Your task to perform on an android device: toggle sleep mode Image 0: 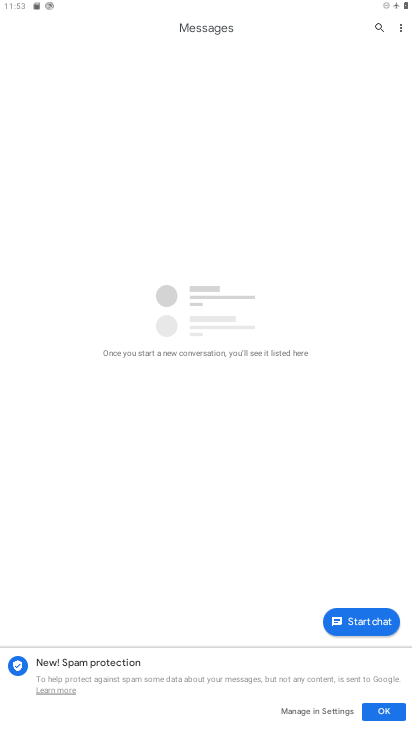
Step 0: press home button
Your task to perform on an android device: toggle sleep mode Image 1: 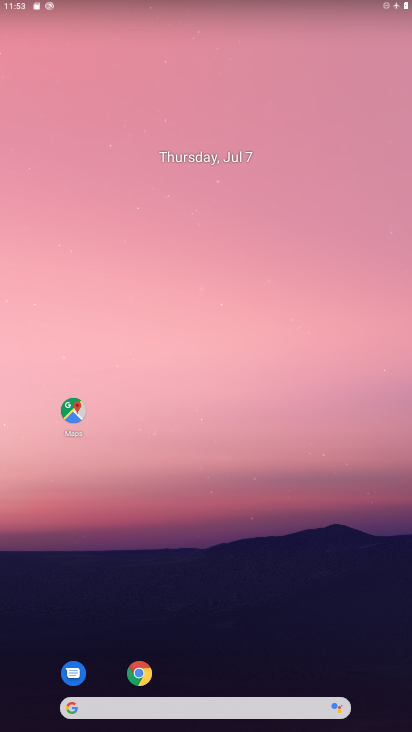
Step 1: drag from (223, 654) to (287, 340)
Your task to perform on an android device: toggle sleep mode Image 2: 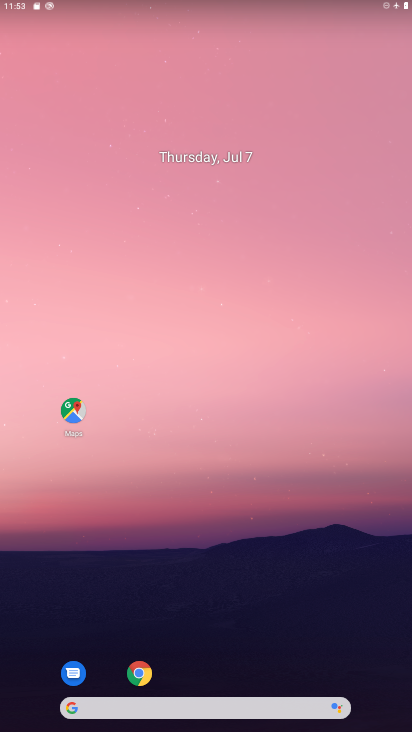
Step 2: drag from (263, 548) to (337, 313)
Your task to perform on an android device: toggle sleep mode Image 3: 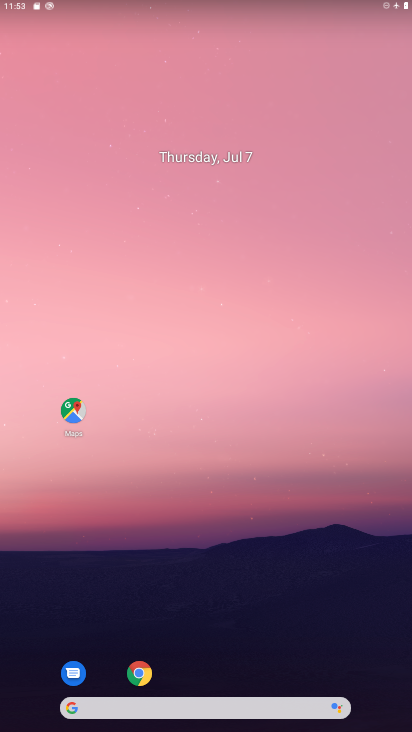
Step 3: drag from (306, 587) to (276, 264)
Your task to perform on an android device: toggle sleep mode Image 4: 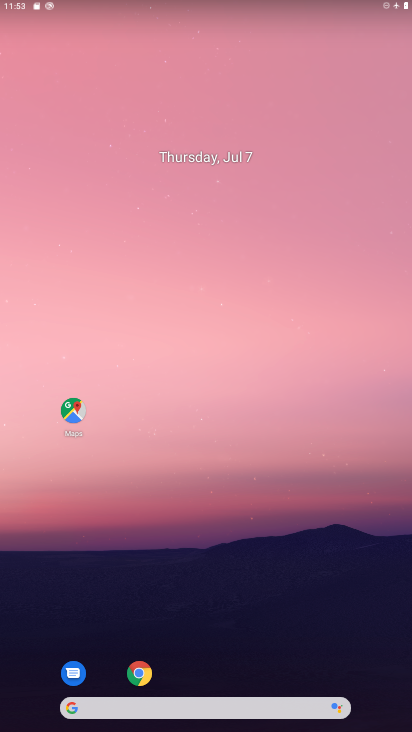
Step 4: drag from (245, 657) to (269, 360)
Your task to perform on an android device: toggle sleep mode Image 5: 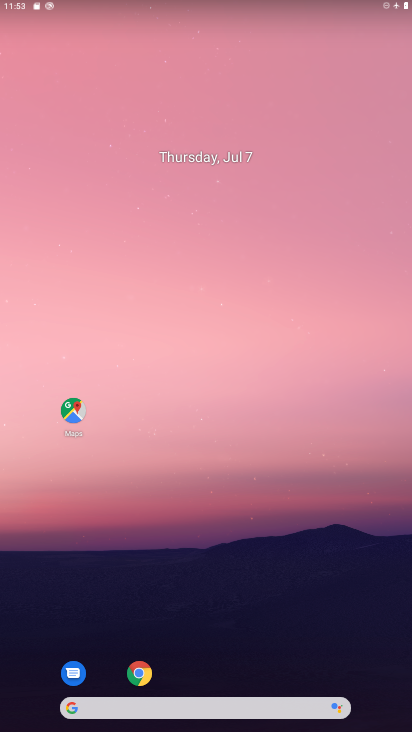
Step 5: drag from (255, 547) to (274, 264)
Your task to perform on an android device: toggle sleep mode Image 6: 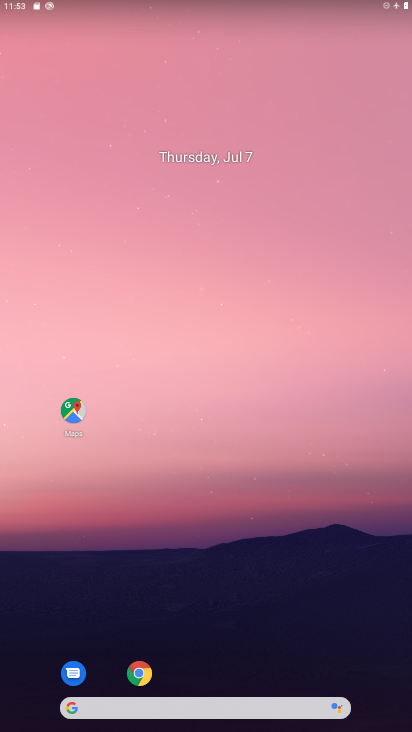
Step 6: drag from (269, 486) to (263, 227)
Your task to perform on an android device: toggle sleep mode Image 7: 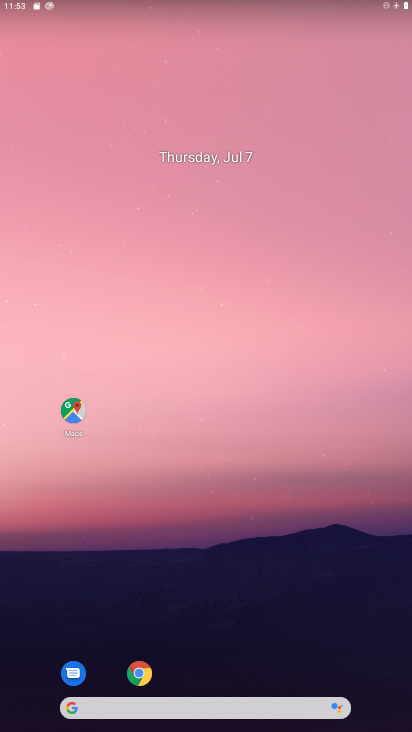
Step 7: drag from (293, 604) to (320, 460)
Your task to perform on an android device: toggle sleep mode Image 8: 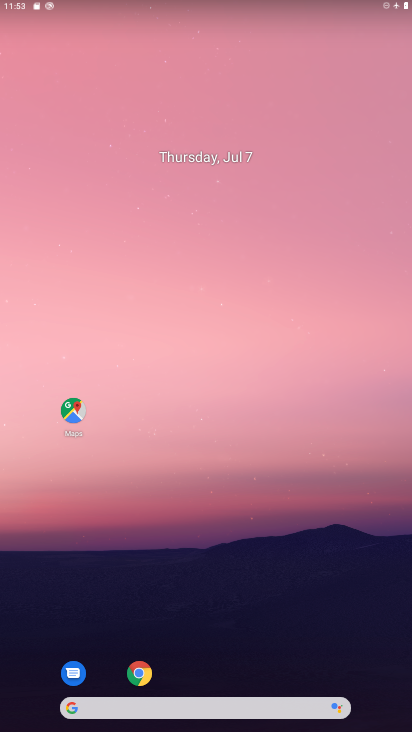
Step 8: drag from (274, 585) to (338, 46)
Your task to perform on an android device: toggle sleep mode Image 9: 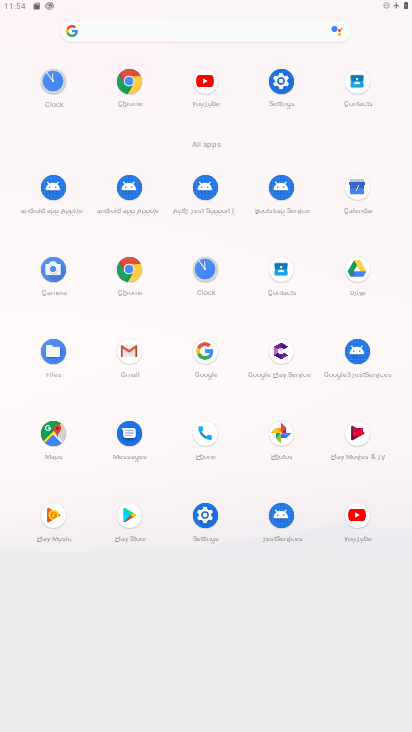
Step 9: click (280, 73)
Your task to perform on an android device: toggle sleep mode Image 10: 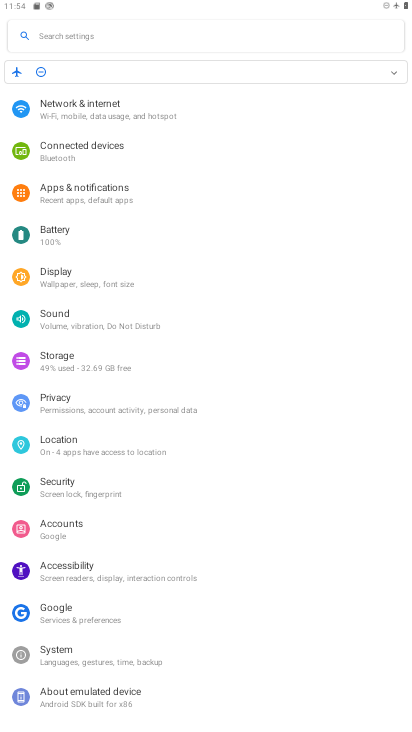
Step 10: click (102, 42)
Your task to perform on an android device: toggle sleep mode Image 11: 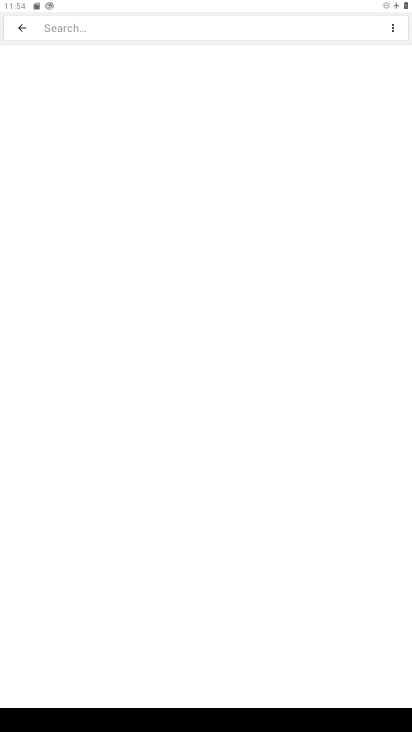
Step 11: type "sleep"
Your task to perform on an android device: toggle sleep mode Image 12: 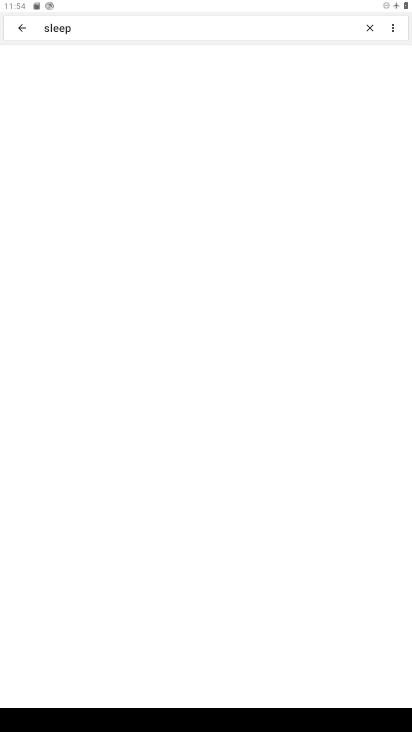
Step 12: press enter
Your task to perform on an android device: toggle sleep mode Image 13: 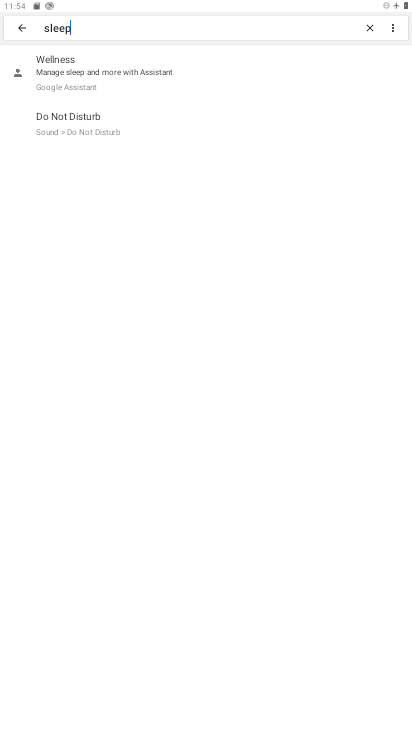
Step 13: click (98, 84)
Your task to perform on an android device: toggle sleep mode Image 14: 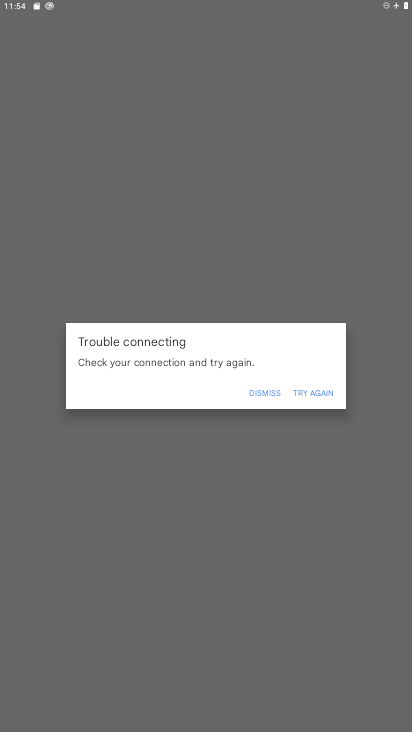
Step 14: click (311, 387)
Your task to perform on an android device: toggle sleep mode Image 15: 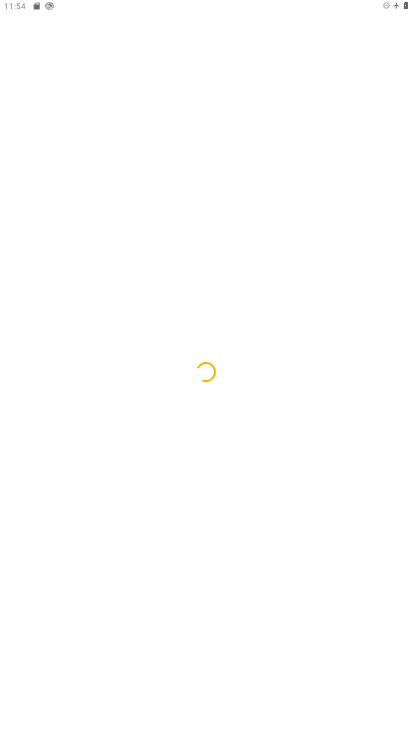
Step 15: task complete